Your task to perform on an android device: Toggle the flashlight Image 0: 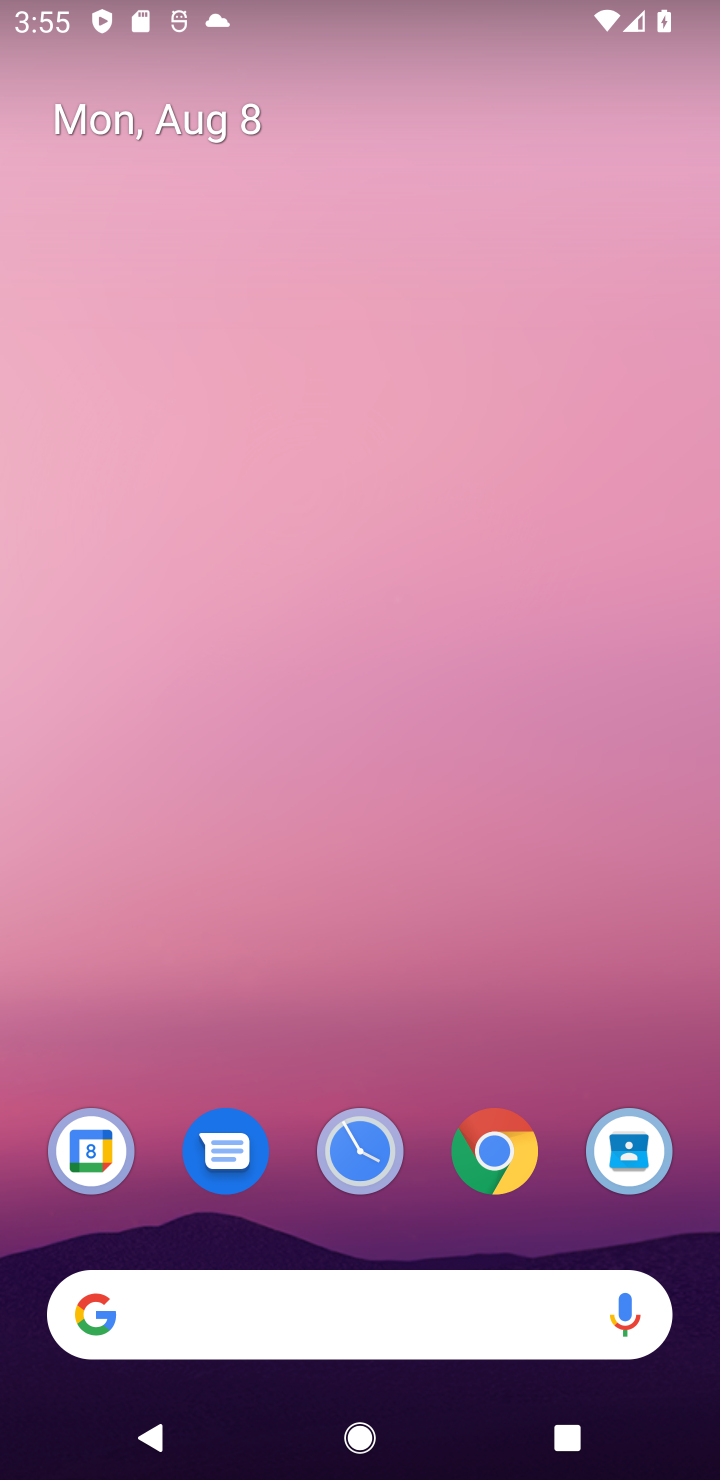
Step 0: drag from (342, 1000) to (310, 86)
Your task to perform on an android device: Toggle the flashlight Image 1: 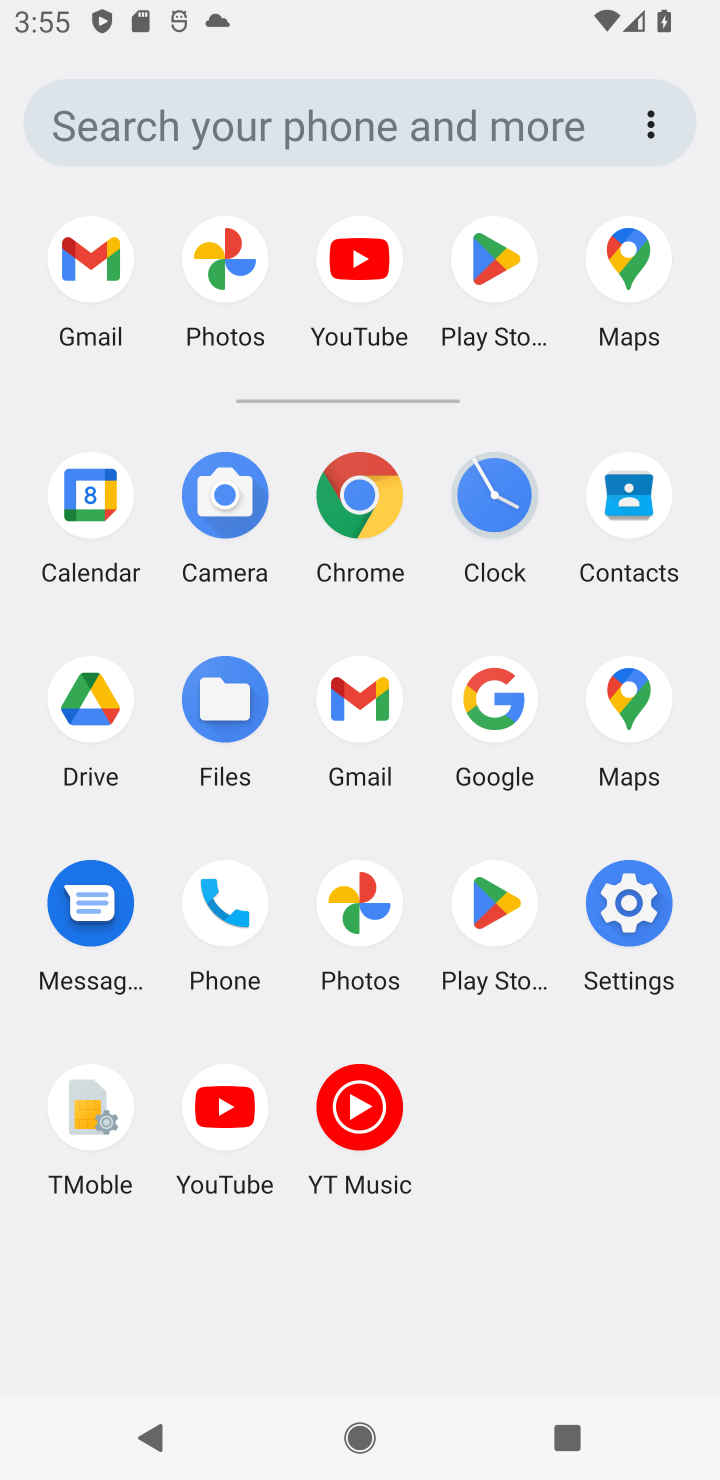
Step 1: click (641, 891)
Your task to perform on an android device: Toggle the flashlight Image 2: 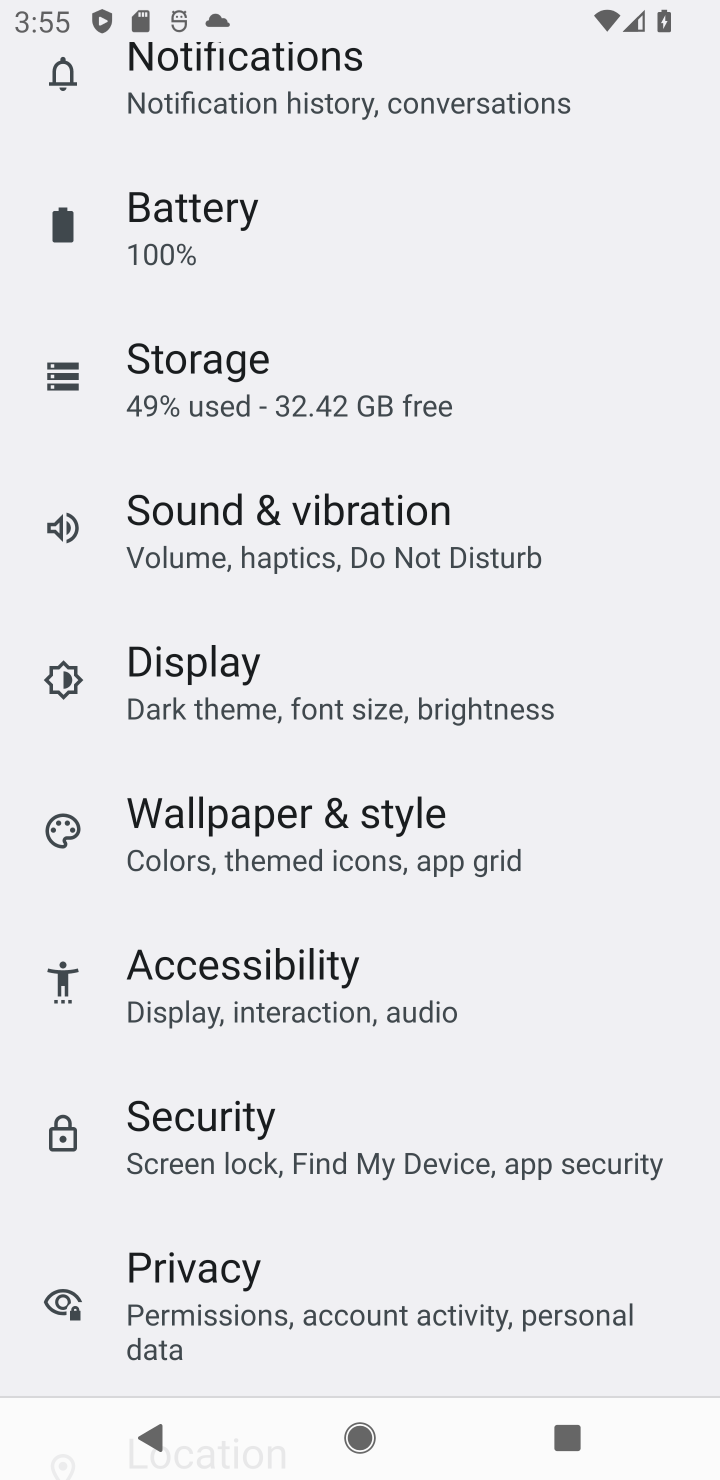
Step 2: task complete